Your task to perform on an android device: Open battery settings Image 0: 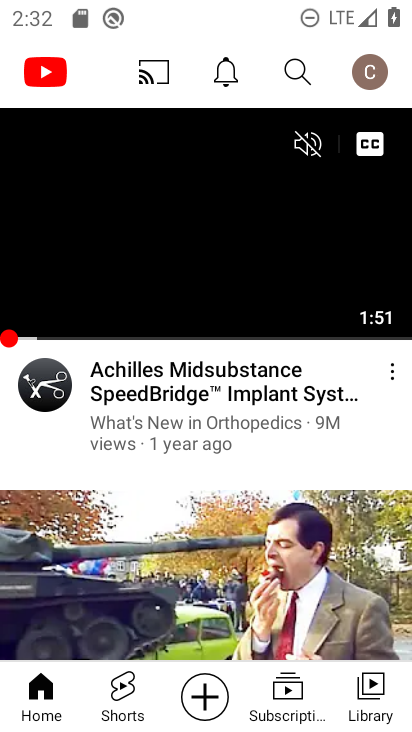
Step 0: press home button
Your task to perform on an android device: Open battery settings Image 1: 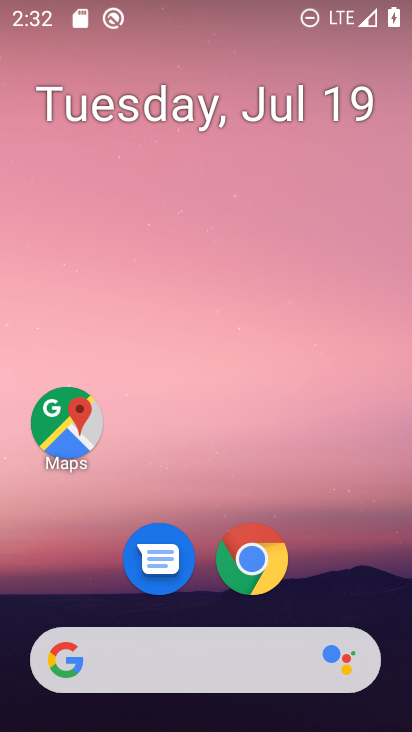
Step 1: drag from (264, 683) to (250, 189)
Your task to perform on an android device: Open battery settings Image 2: 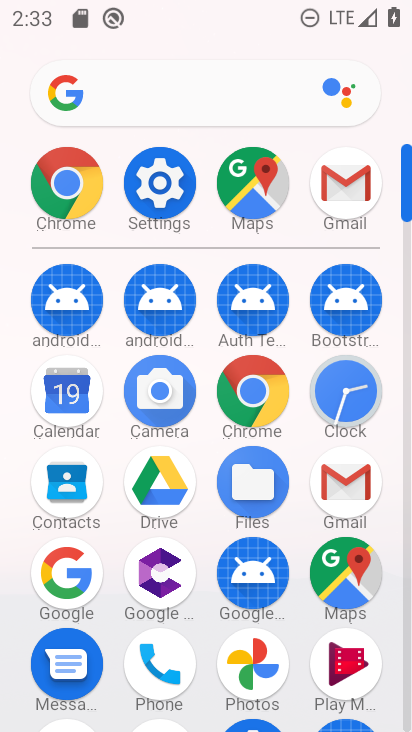
Step 2: click (177, 196)
Your task to perform on an android device: Open battery settings Image 3: 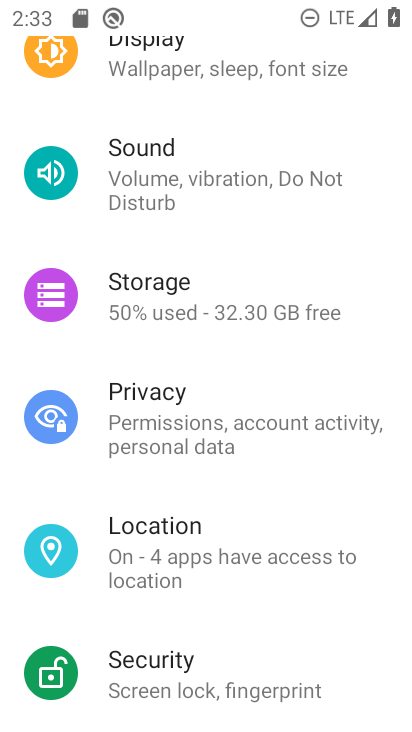
Step 3: drag from (285, 181) to (349, 582)
Your task to perform on an android device: Open battery settings Image 4: 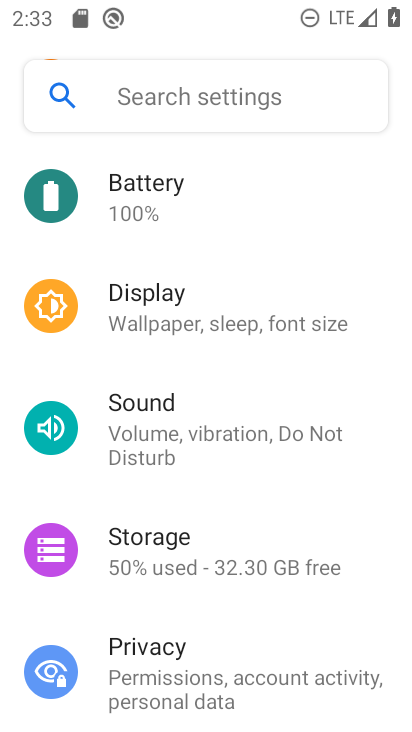
Step 4: click (232, 217)
Your task to perform on an android device: Open battery settings Image 5: 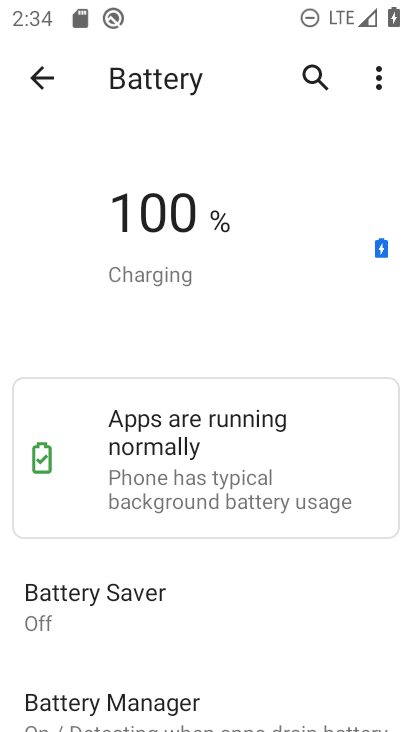
Step 5: task complete